Your task to perform on an android device: all mails in gmail Image 0: 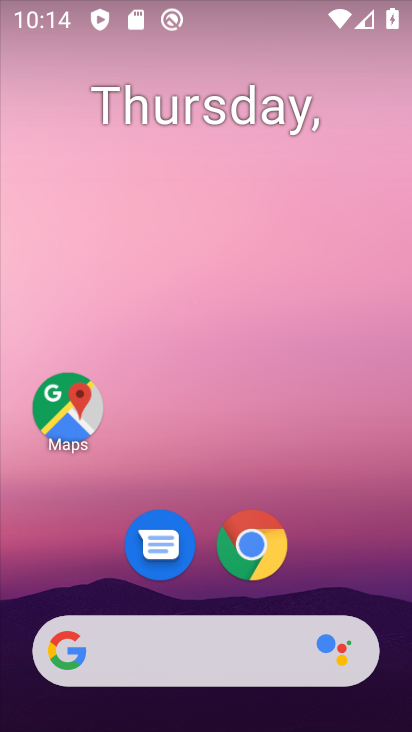
Step 0: drag from (351, 555) to (271, 76)
Your task to perform on an android device: all mails in gmail Image 1: 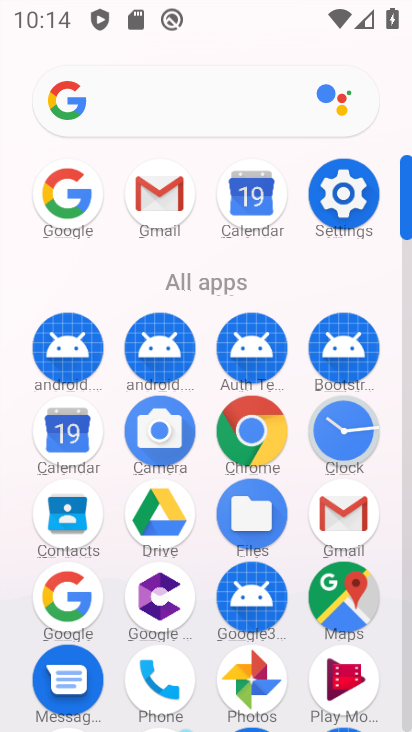
Step 1: click (158, 198)
Your task to perform on an android device: all mails in gmail Image 2: 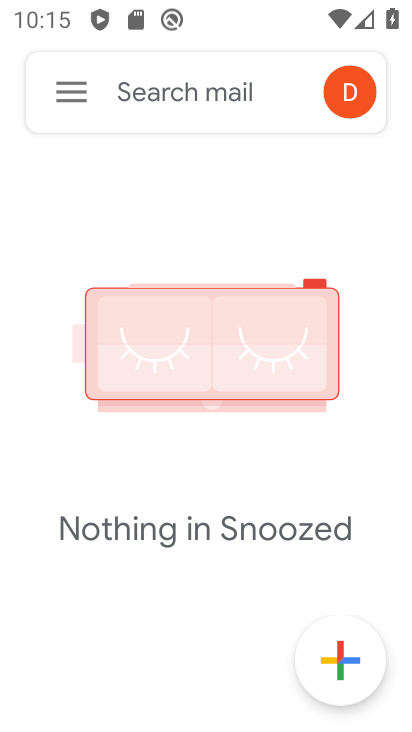
Step 2: click (67, 98)
Your task to perform on an android device: all mails in gmail Image 3: 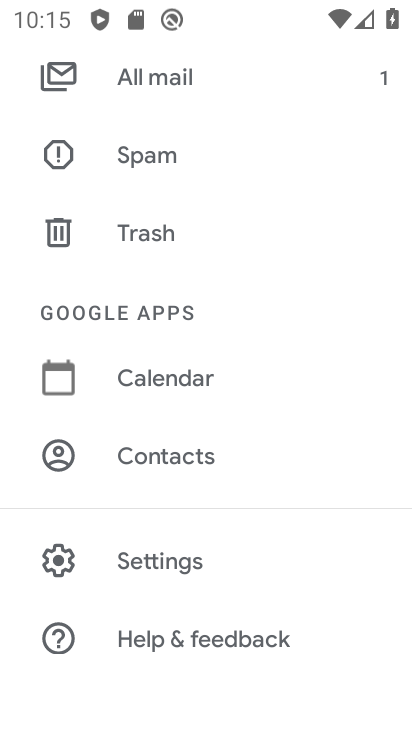
Step 3: click (139, 76)
Your task to perform on an android device: all mails in gmail Image 4: 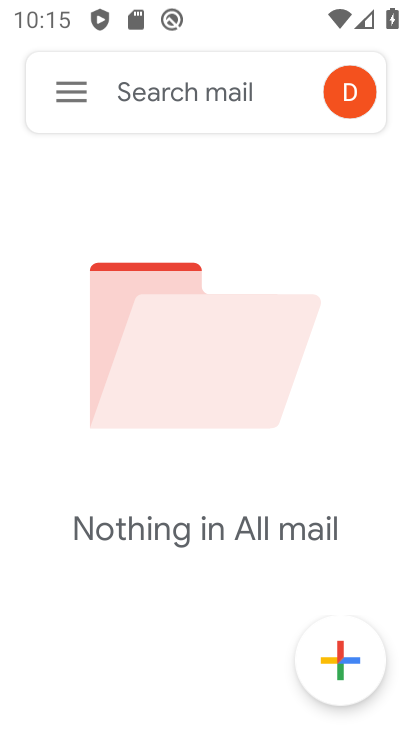
Step 4: task complete